Your task to perform on an android device: search for starred emails in the gmail app Image 0: 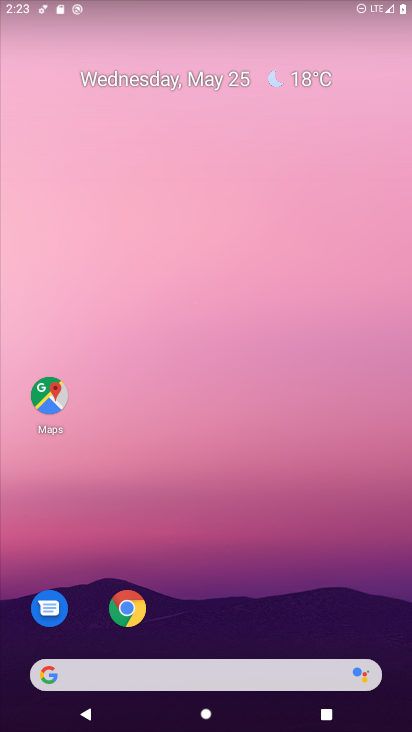
Step 0: drag from (370, 612) to (344, 72)
Your task to perform on an android device: search for starred emails in the gmail app Image 1: 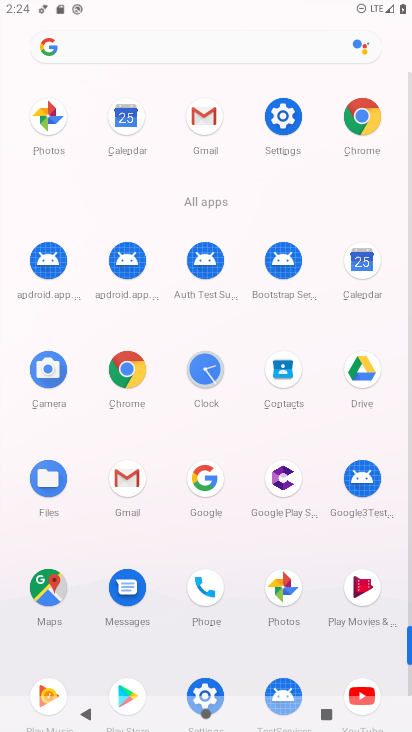
Step 1: click (125, 477)
Your task to perform on an android device: search for starred emails in the gmail app Image 2: 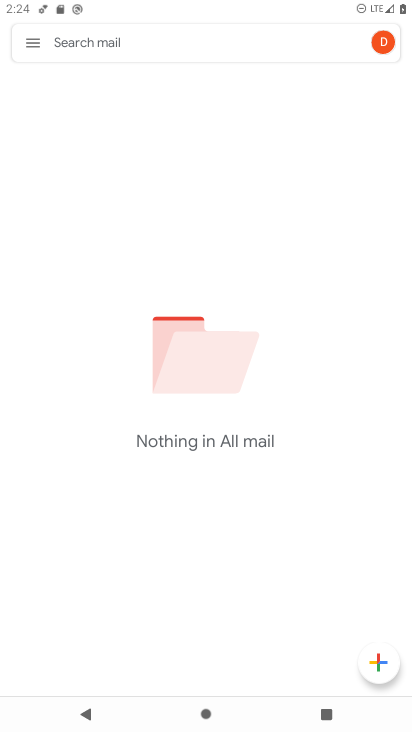
Step 2: click (33, 45)
Your task to perform on an android device: search for starred emails in the gmail app Image 3: 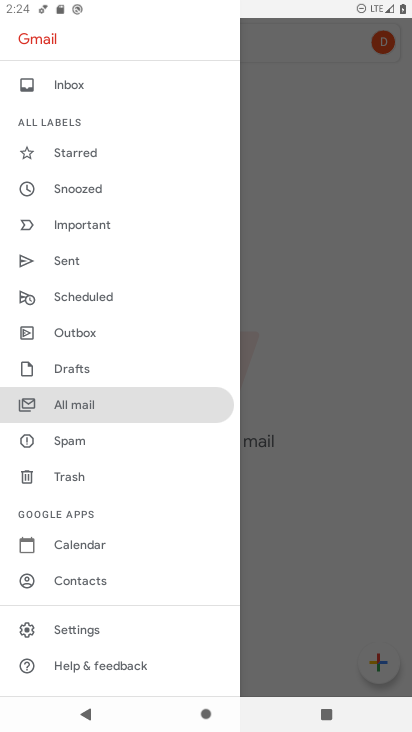
Step 3: click (74, 152)
Your task to perform on an android device: search for starred emails in the gmail app Image 4: 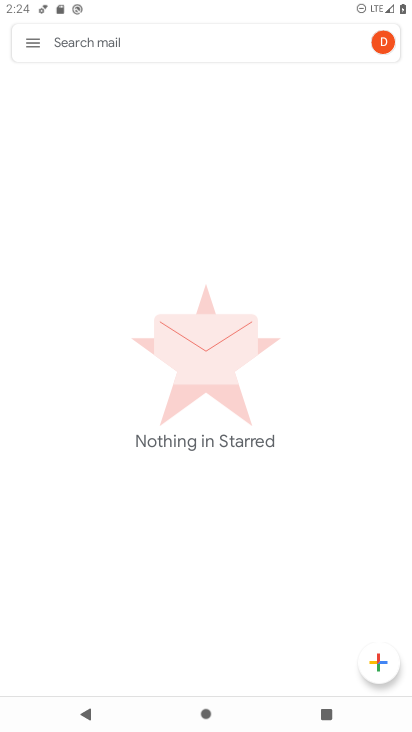
Step 4: task complete